Your task to perform on an android device: What's the weather going to be tomorrow? Image 0: 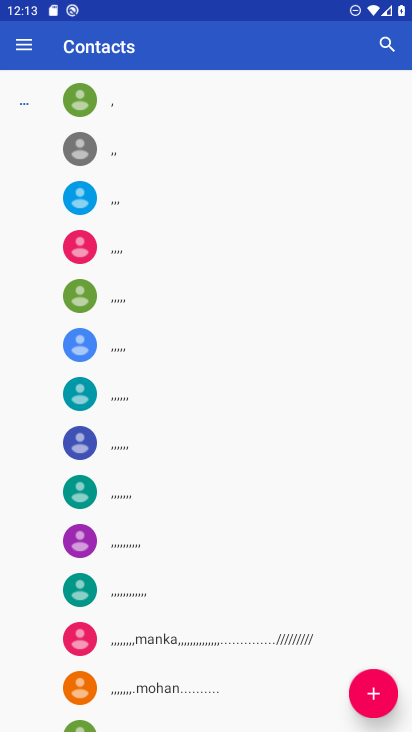
Step 0: press home button
Your task to perform on an android device: What's the weather going to be tomorrow? Image 1: 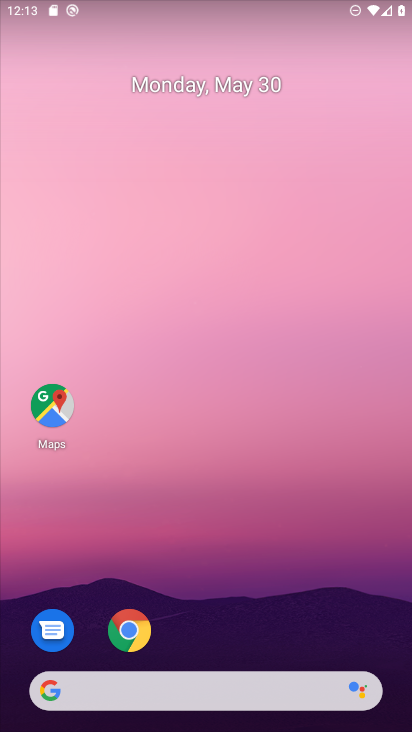
Step 1: click (55, 690)
Your task to perform on an android device: What's the weather going to be tomorrow? Image 2: 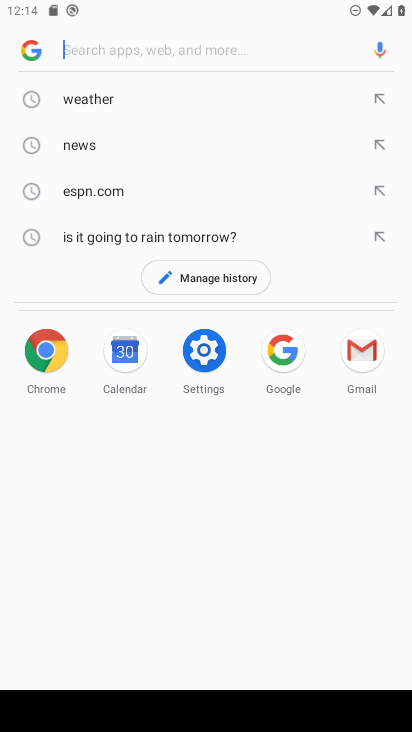
Step 2: click (103, 100)
Your task to perform on an android device: What's the weather going to be tomorrow? Image 3: 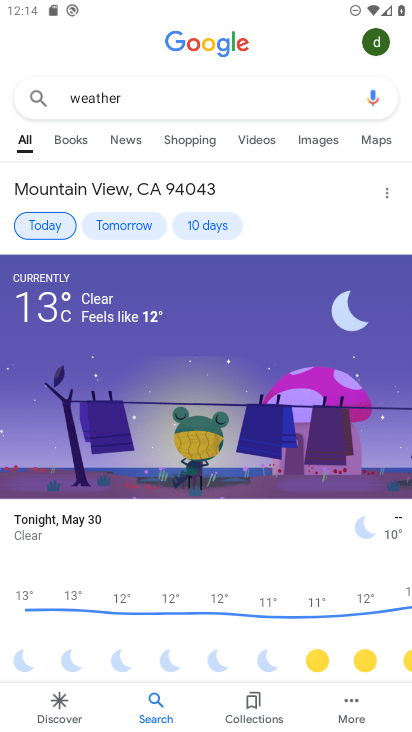
Step 3: click (134, 219)
Your task to perform on an android device: What's the weather going to be tomorrow? Image 4: 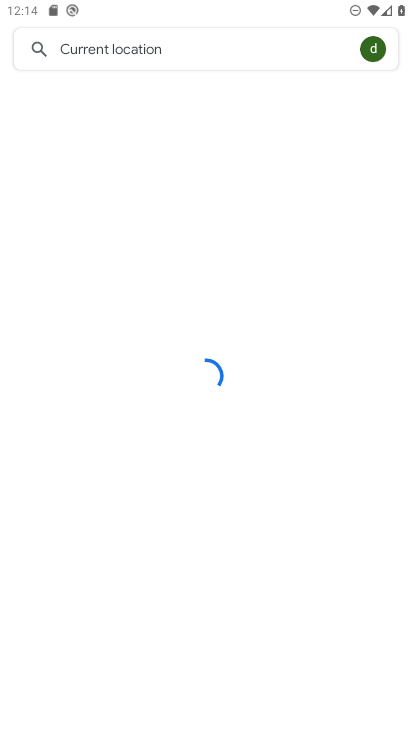
Step 4: click (131, 226)
Your task to perform on an android device: What's the weather going to be tomorrow? Image 5: 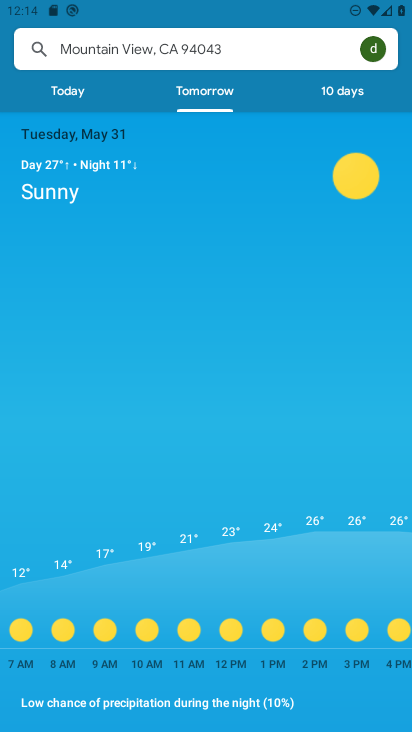
Step 5: task complete